Your task to perform on an android device: turn off sleep mode Image 0: 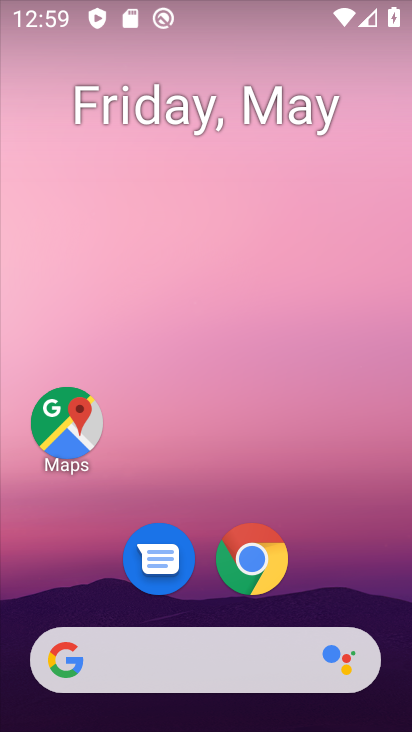
Step 0: drag from (386, 573) to (328, 127)
Your task to perform on an android device: turn off sleep mode Image 1: 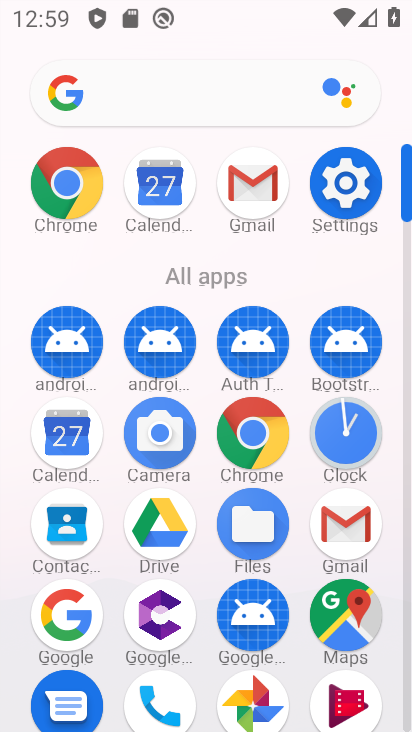
Step 1: click (358, 197)
Your task to perform on an android device: turn off sleep mode Image 2: 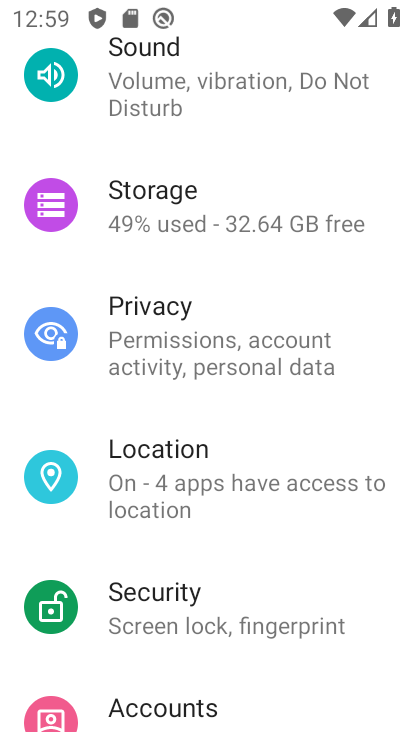
Step 2: drag from (221, 141) to (228, 553)
Your task to perform on an android device: turn off sleep mode Image 3: 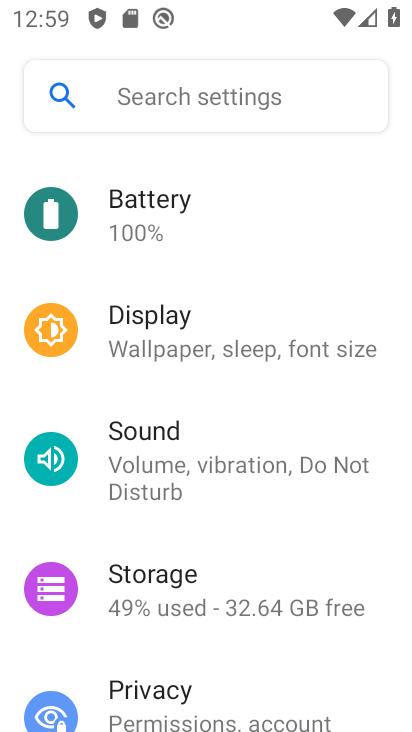
Step 3: click (253, 100)
Your task to perform on an android device: turn off sleep mode Image 4: 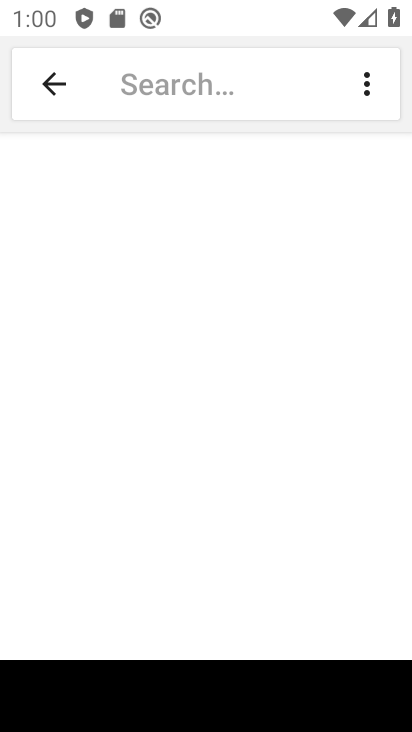
Step 4: type "sleep mode"
Your task to perform on an android device: turn off sleep mode Image 5: 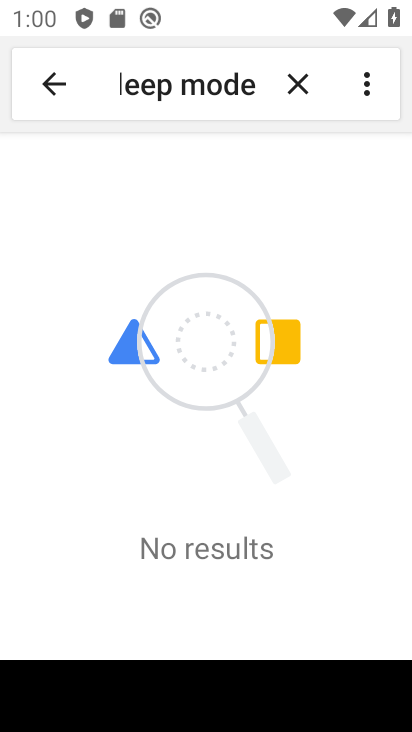
Step 5: task complete